Your task to perform on an android device: delete a single message in the gmail app Image 0: 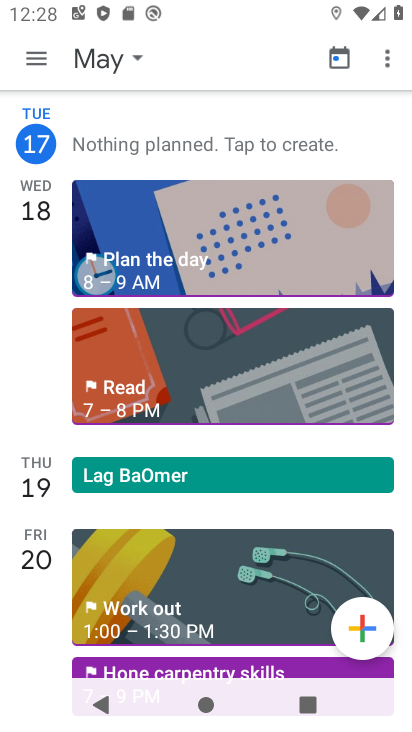
Step 0: press home button
Your task to perform on an android device: delete a single message in the gmail app Image 1: 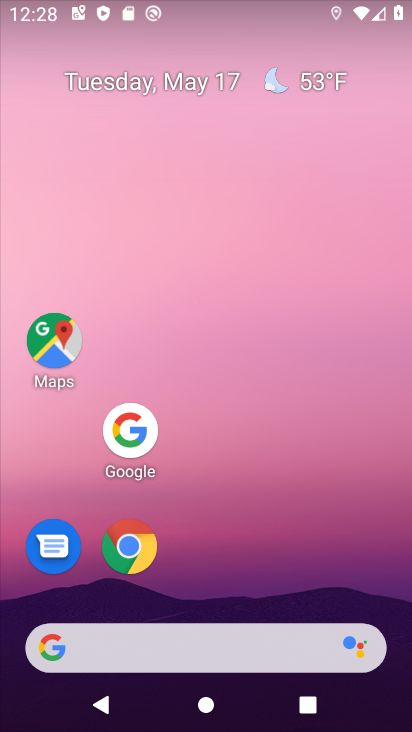
Step 1: drag from (235, 542) to (260, 76)
Your task to perform on an android device: delete a single message in the gmail app Image 2: 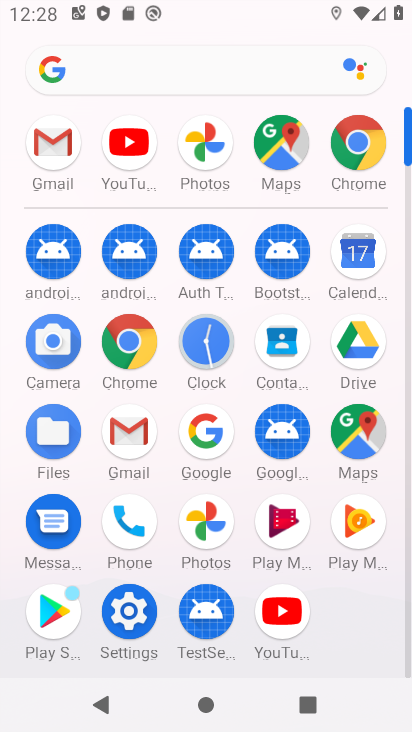
Step 2: click (52, 148)
Your task to perform on an android device: delete a single message in the gmail app Image 3: 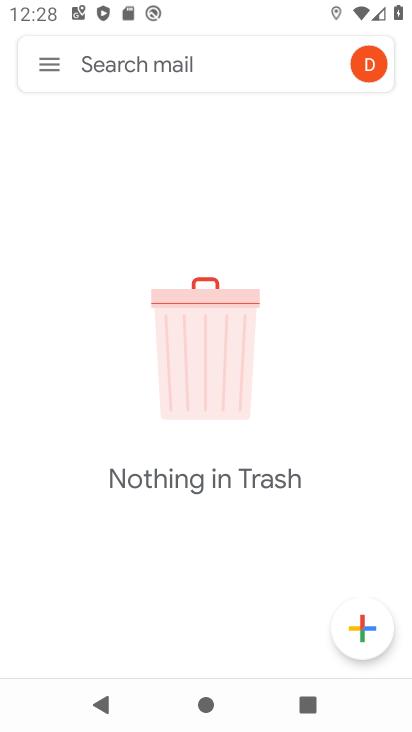
Step 3: click (55, 63)
Your task to perform on an android device: delete a single message in the gmail app Image 4: 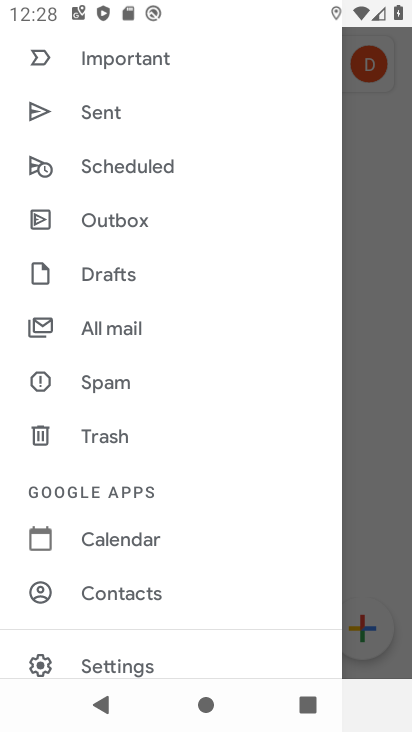
Step 4: click (134, 331)
Your task to perform on an android device: delete a single message in the gmail app Image 5: 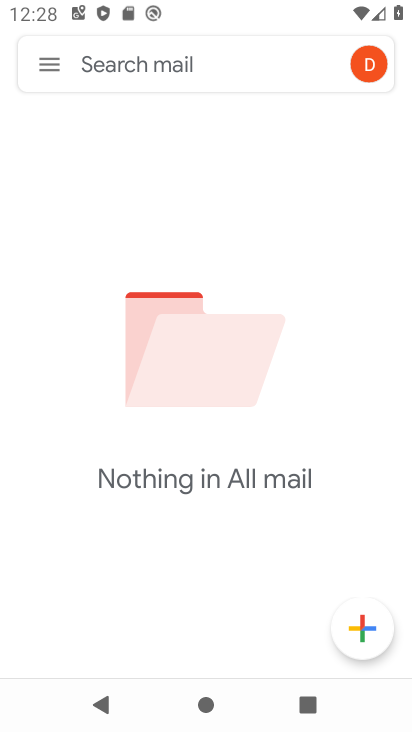
Step 5: task complete